Your task to perform on an android device: set default search engine in the chrome app Image 0: 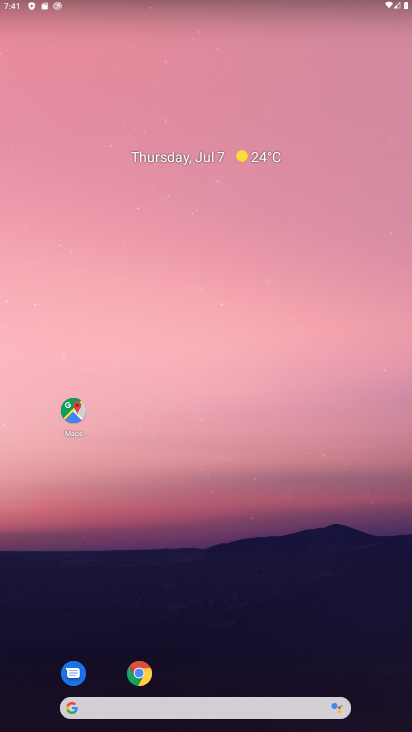
Step 0: click (140, 682)
Your task to perform on an android device: set default search engine in the chrome app Image 1: 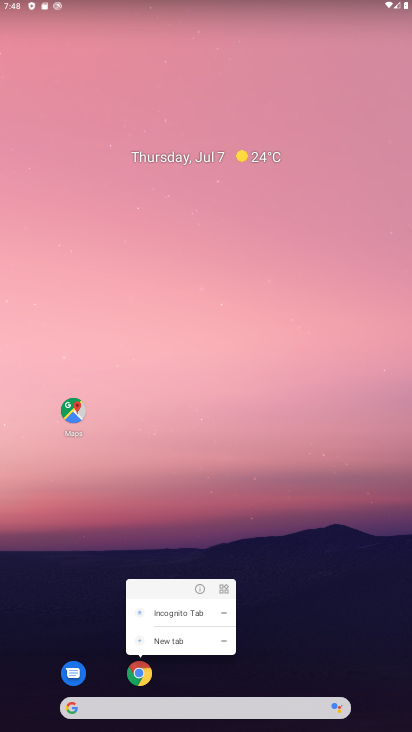
Step 1: drag from (30, 608) to (230, 248)
Your task to perform on an android device: set default search engine in the chrome app Image 2: 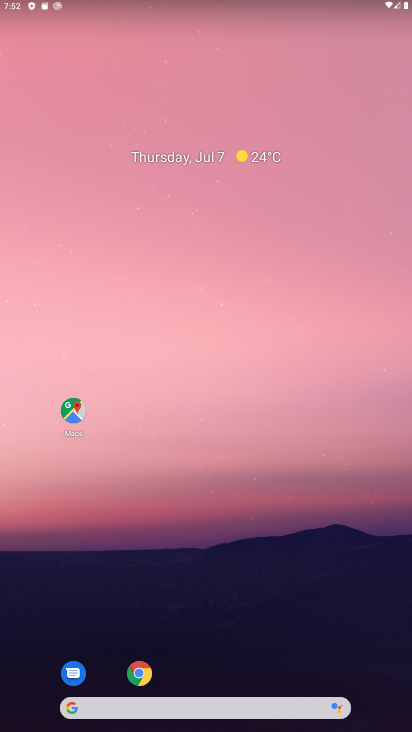
Step 2: click (142, 679)
Your task to perform on an android device: set default search engine in the chrome app Image 3: 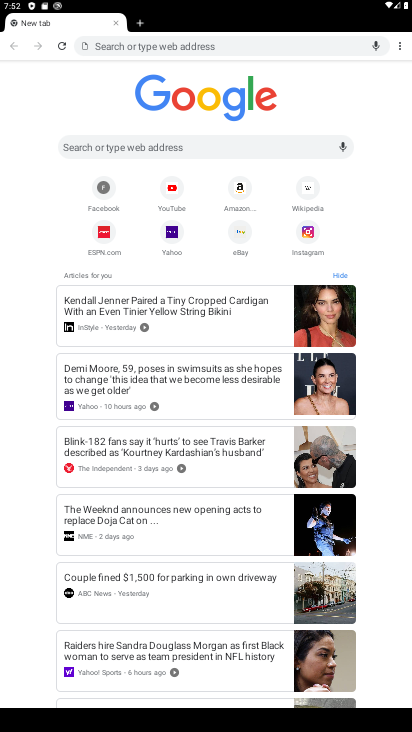
Step 3: task complete